Your task to perform on an android device: Open my contact list Image 0: 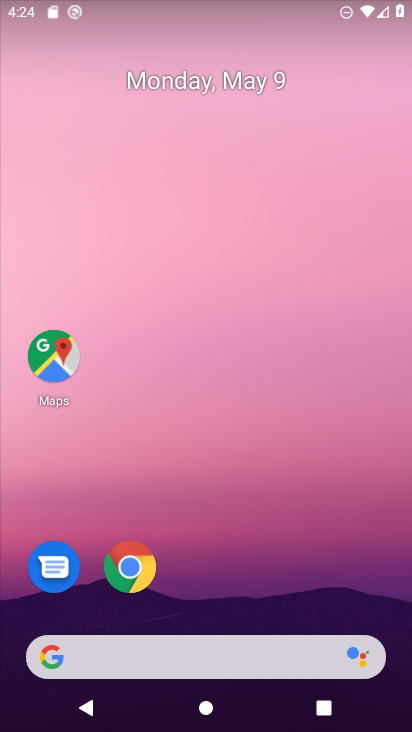
Step 0: drag from (225, 592) to (206, 34)
Your task to perform on an android device: Open my contact list Image 1: 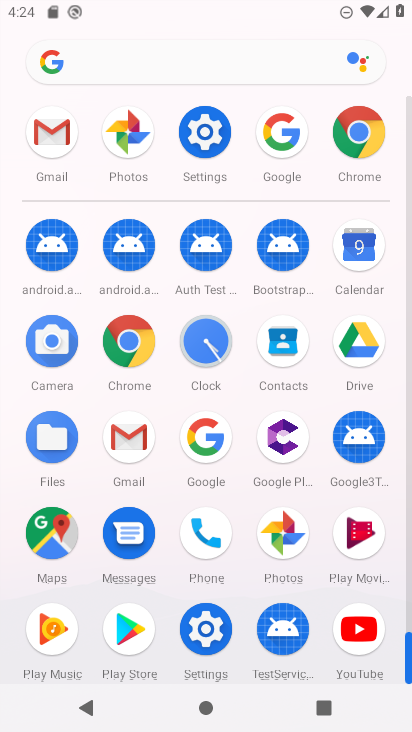
Step 1: click (287, 343)
Your task to perform on an android device: Open my contact list Image 2: 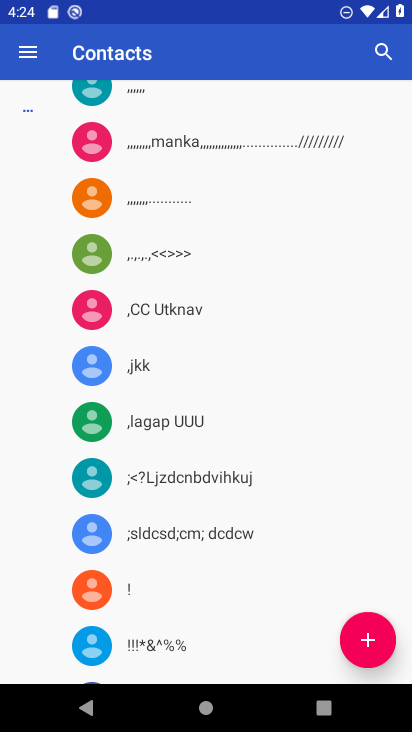
Step 2: task complete